Your task to perform on an android device: open chrome privacy settings Image 0: 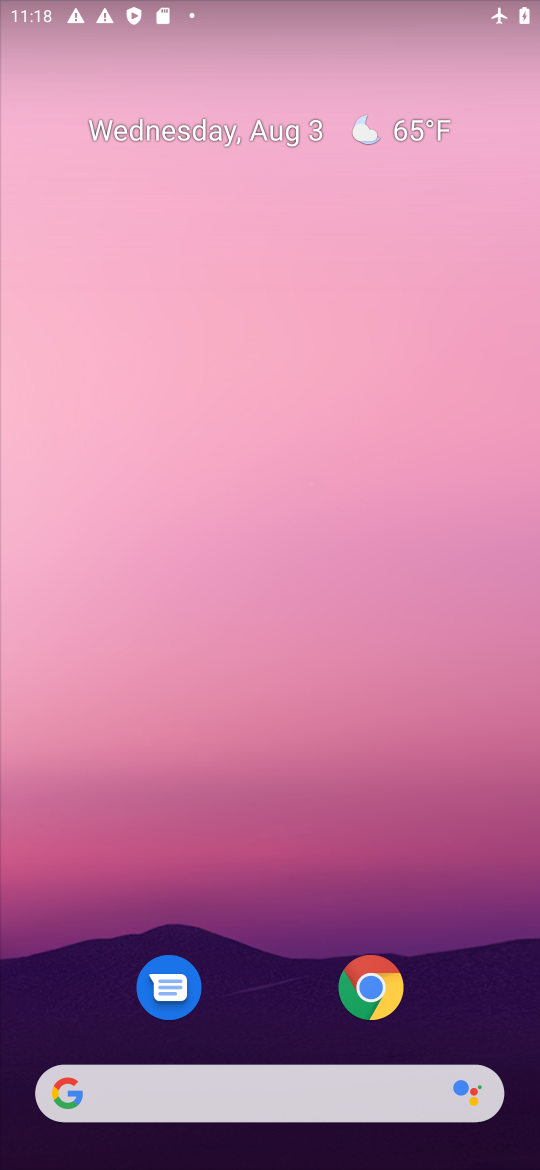
Step 0: drag from (319, 935) to (297, 220)
Your task to perform on an android device: open chrome privacy settings Image 1: 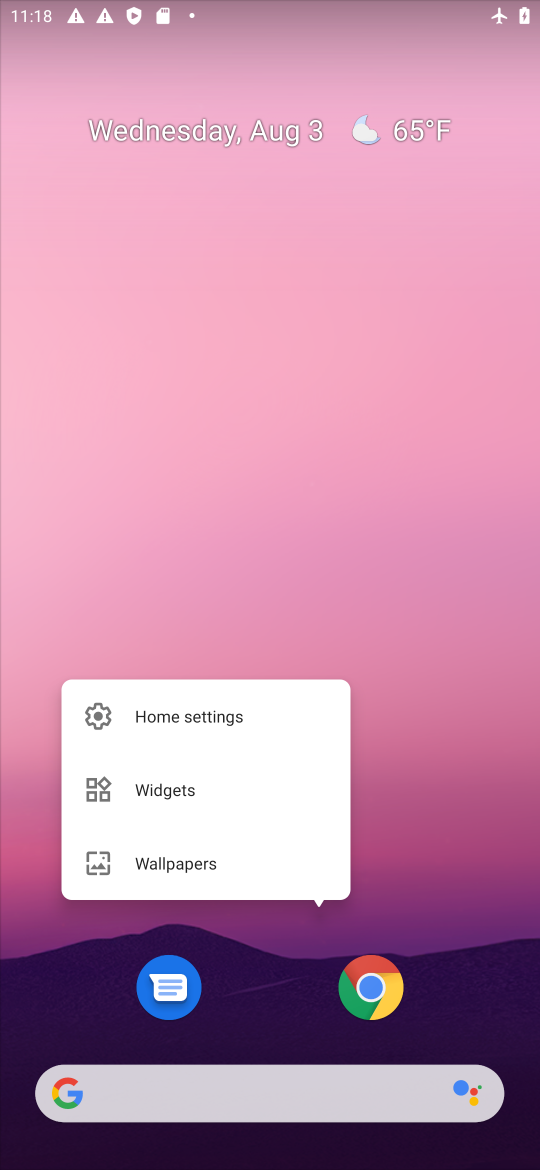
Step 1: click (445, 785)
Your task to perform on an android device: open chrome privacy settings Image 2: 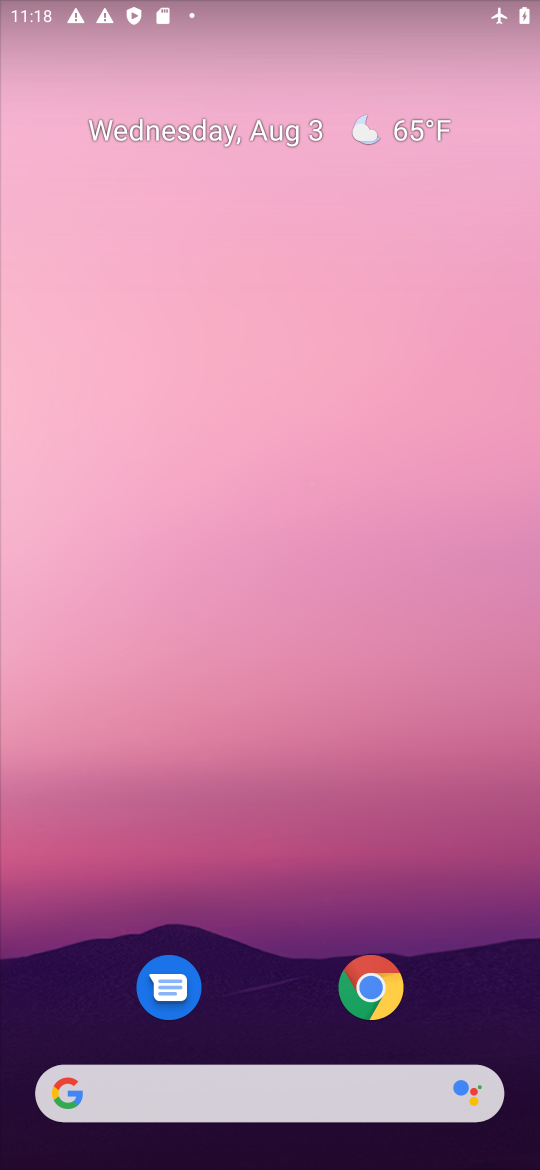
Step 2: drag from (225, 713) to (221, 189)
Your task to perform on an android device: open chrome privacy settings Image 3: 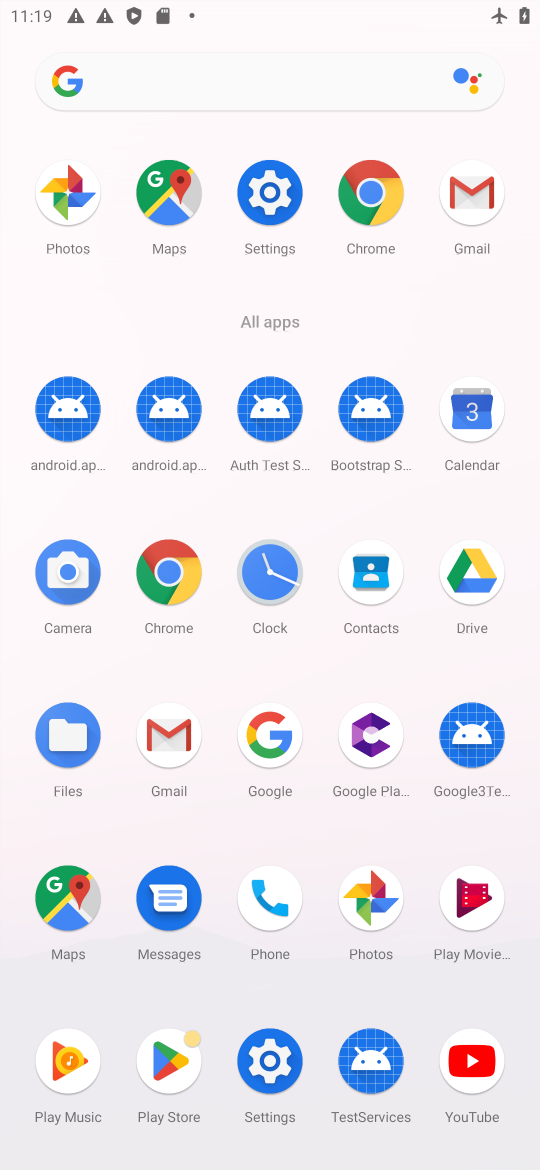
Step 3: click (377, 201)
Your task to perform on an android device: open chrome privacy settings Image 4: 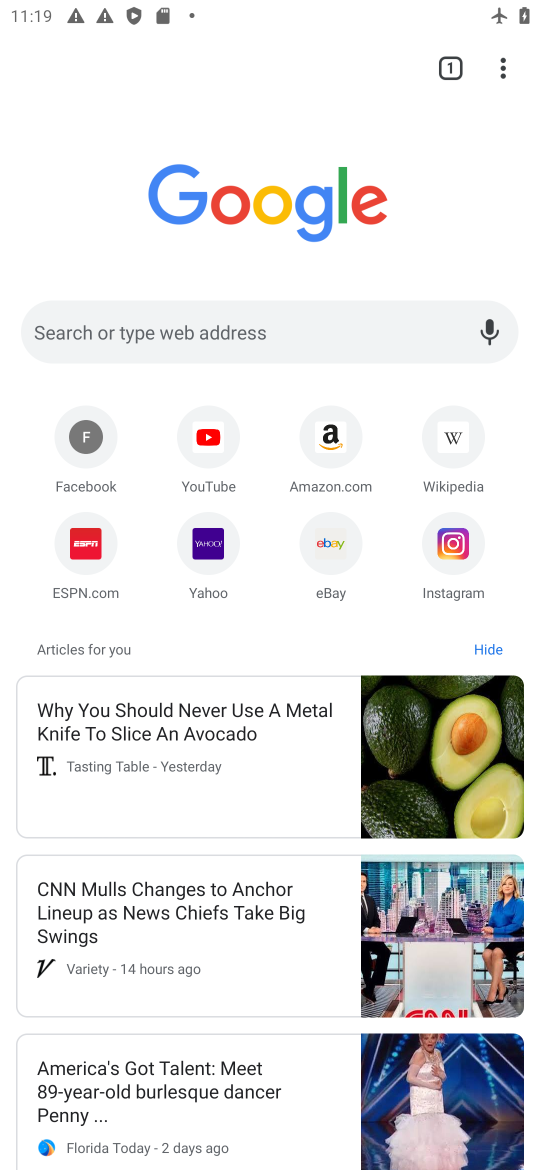
Step 4: click (502, 62)
Your task to perform on an android device: open chrome privacy settings Image 5: 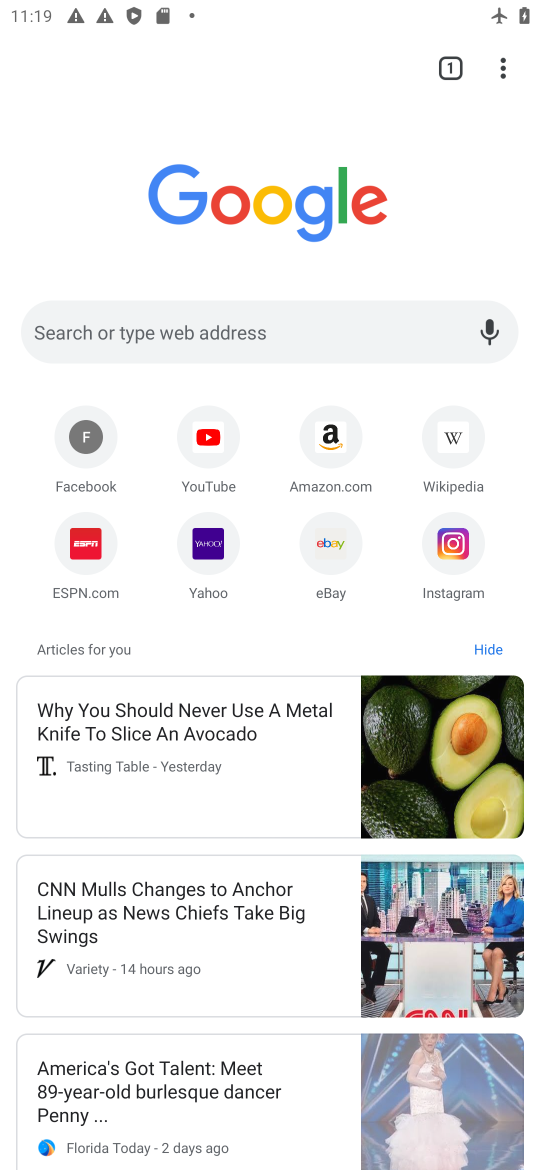
Step 5: click (502, 62)
Your task to perform on an android device: open chrome privacy settings Image 6: 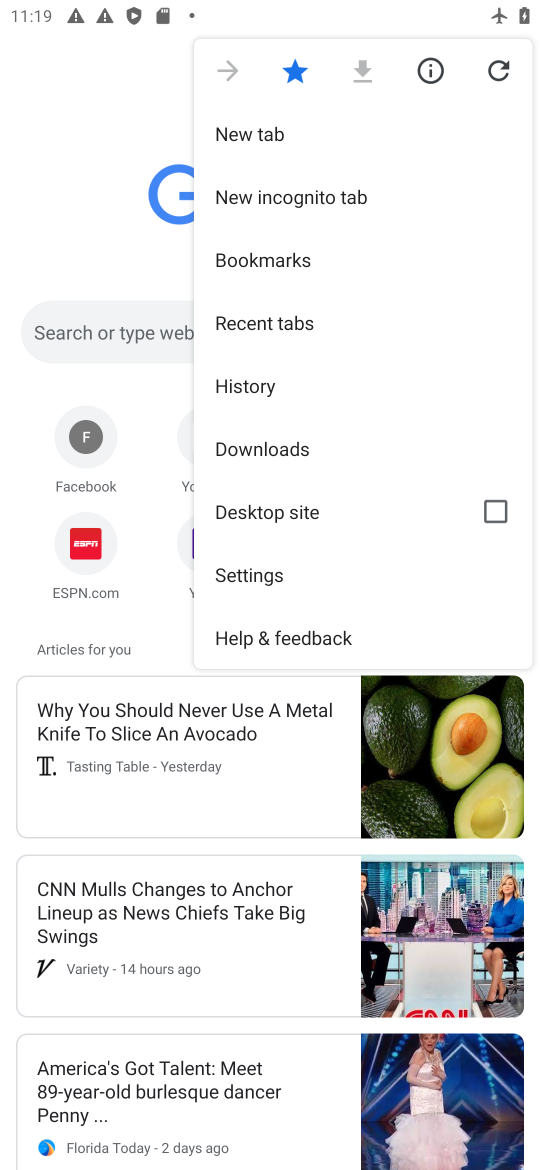
Step 6: click (277, 564)
Your task to perform on an android device: open chrome privacy settings Image 7: 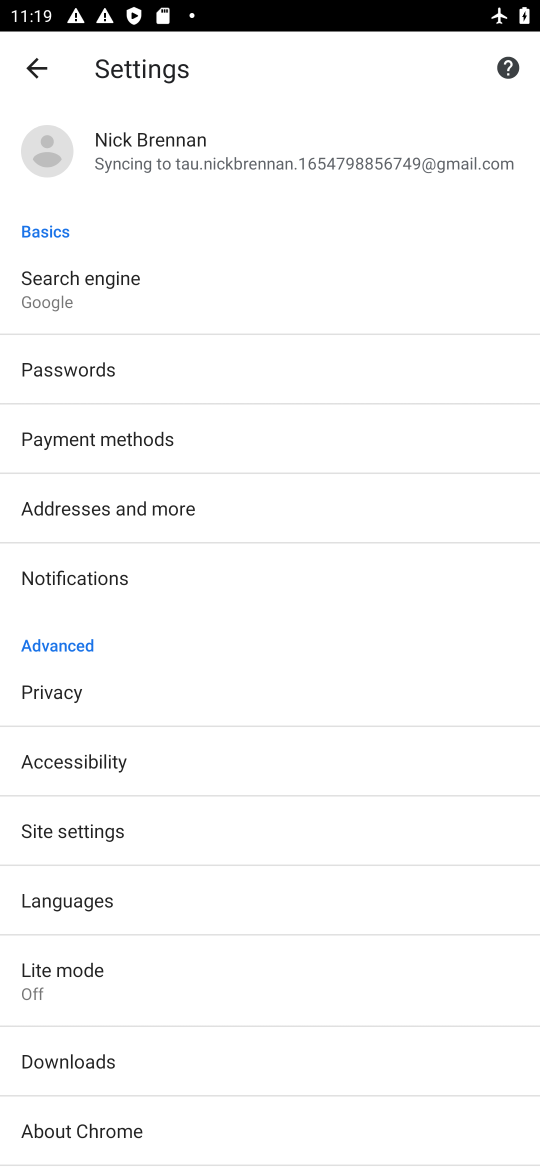
Step 7: click (67, 693)
Your task to perform on an android device: open chrome privacy settings Image 8: 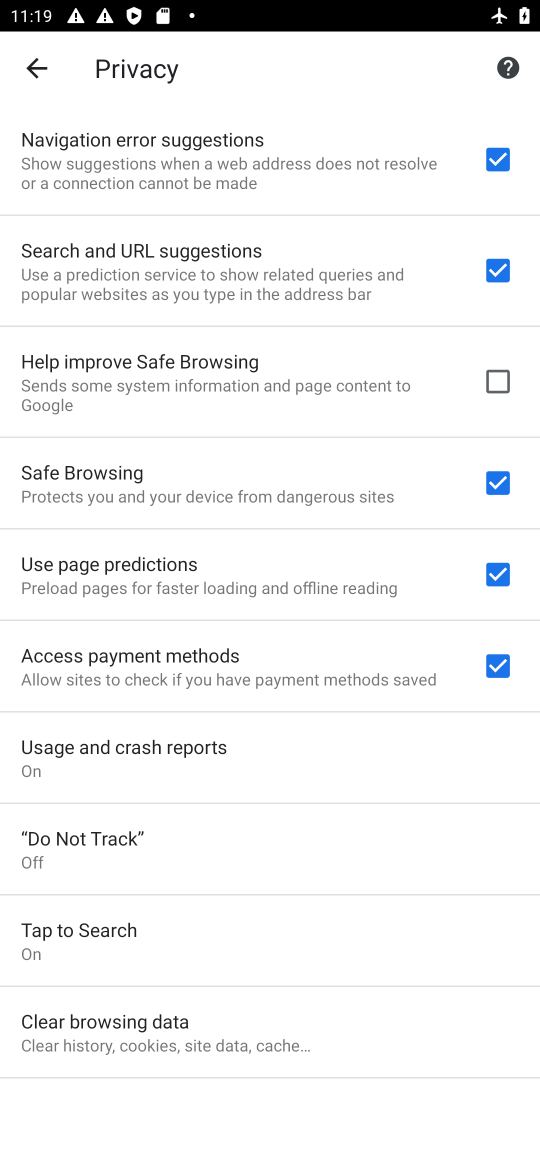
Step 8: task complete